Your task to perform on an android device: turn on translation in the chrome app Image 0: 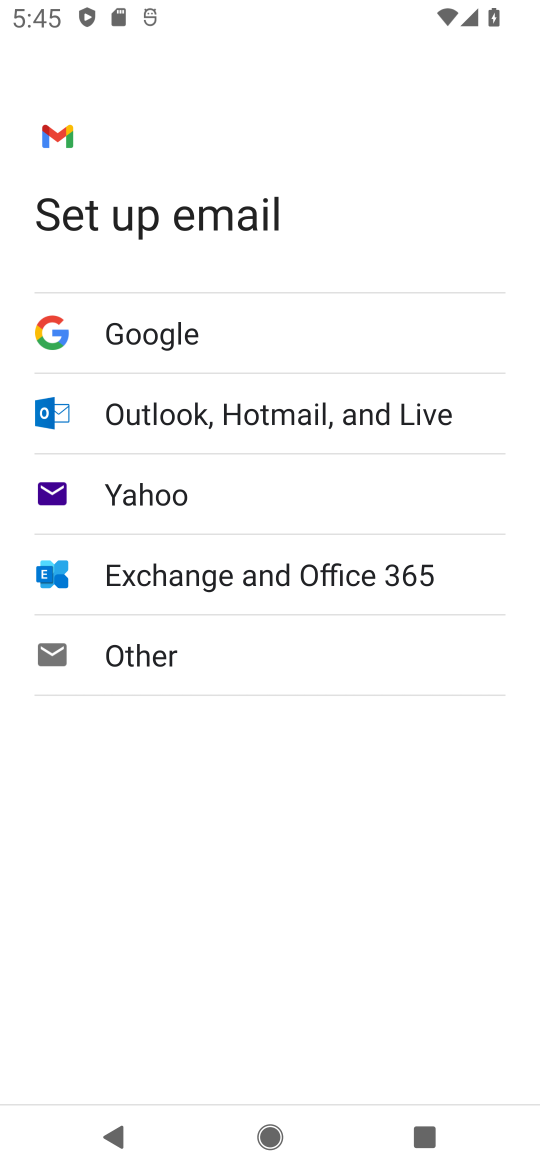
Step 0: press home button
Your task to perform on an android device: turn on translation in the chrome app Image 1: 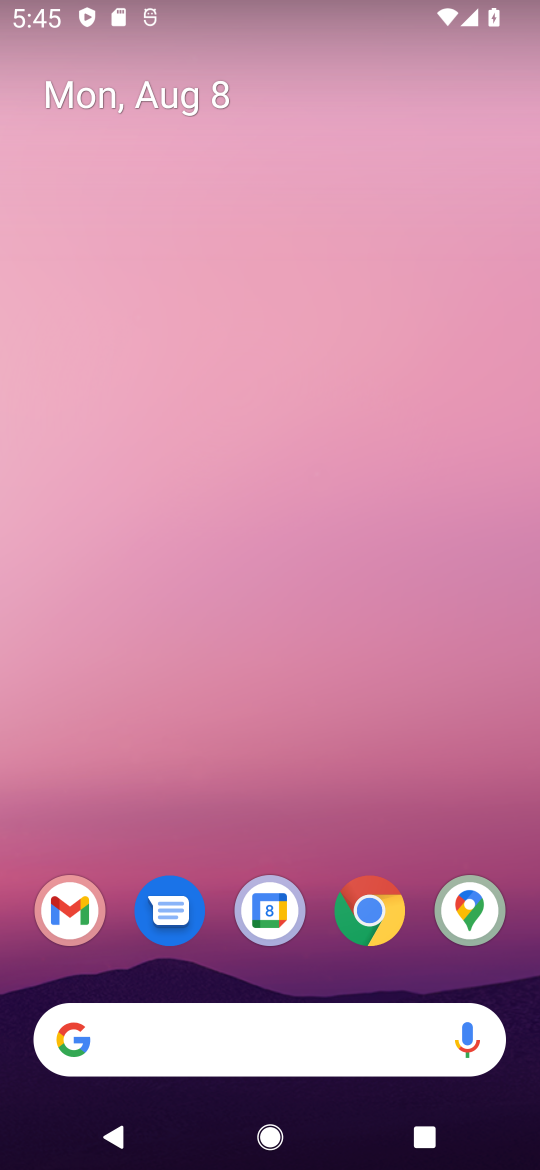
Step 1: click (368, 909)
Your task to perform on an android device: turn on translation in the chrome app Image 2: 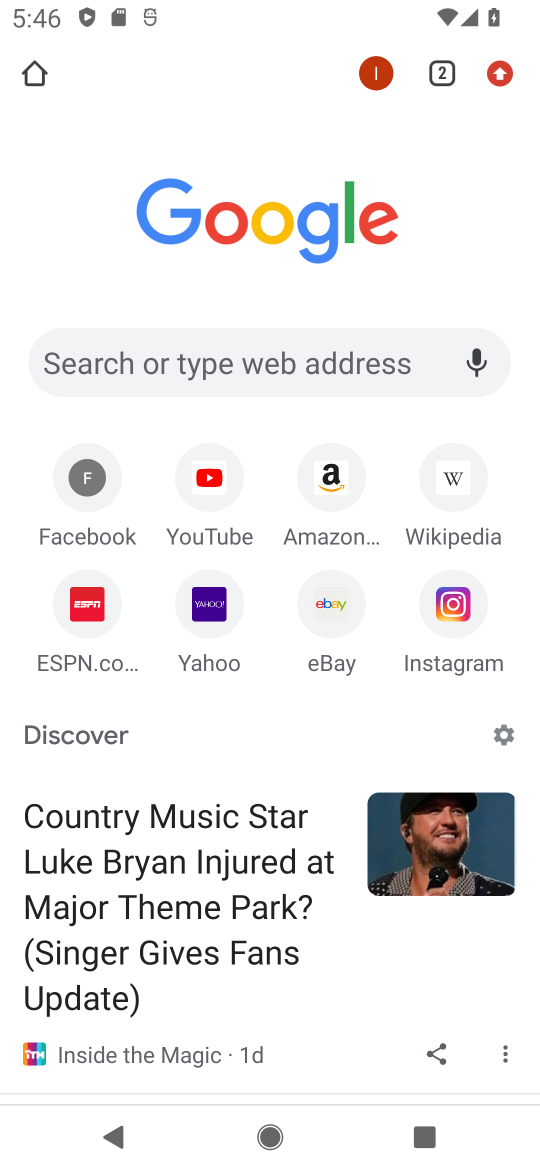
Step 2: click (501, 79)
Your task to perform on an android device: turn on translation in the chrome app Image 3: 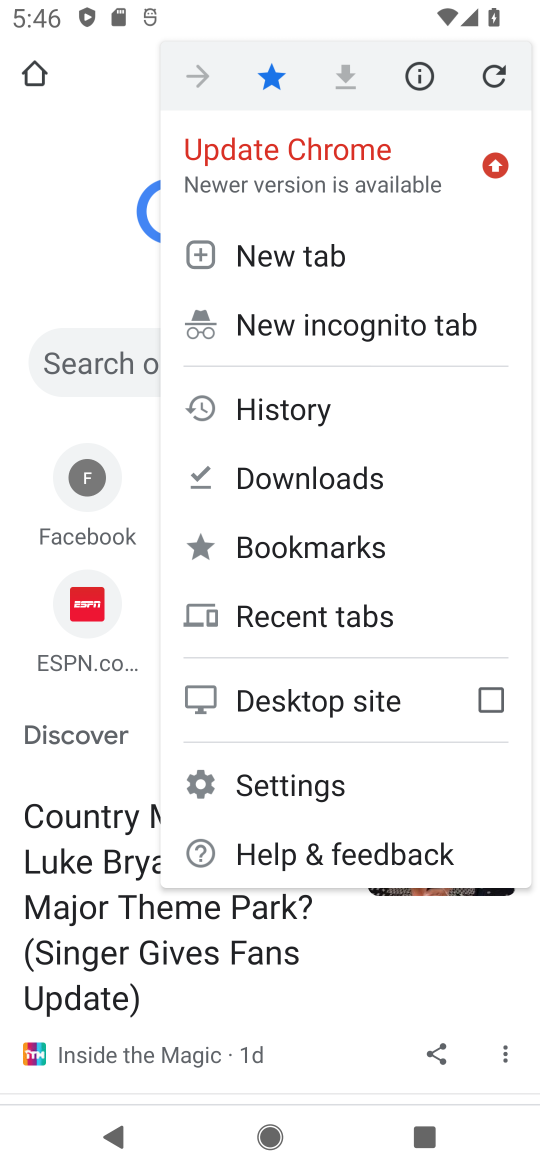
Step 3: click (298, 785)
Your task to perform on an android device: turn on translation in the chrome app Image 4: 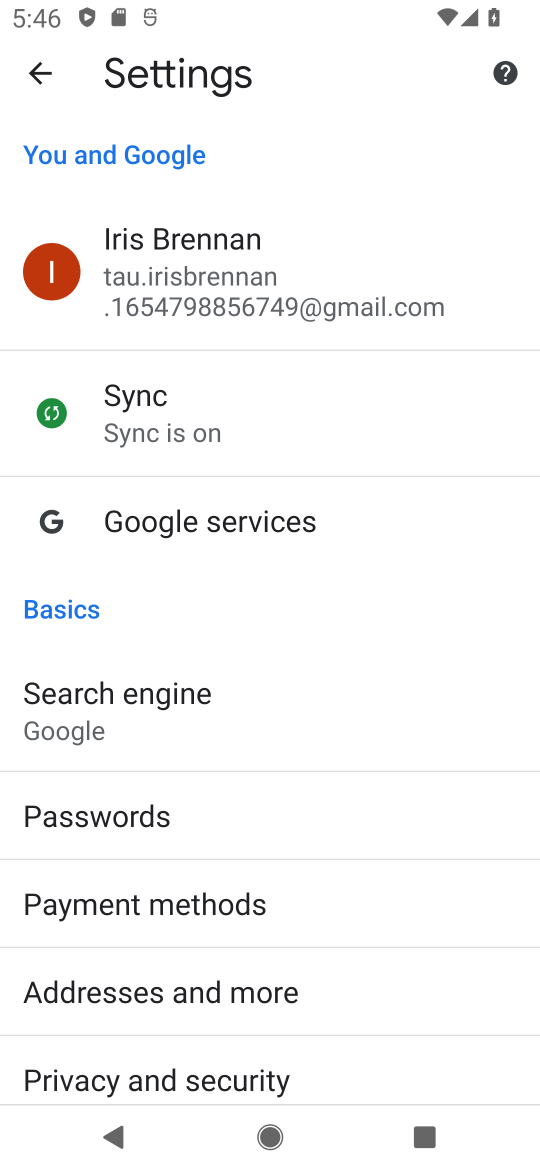
Step 4: drag from (214, 873) to (270, 737)
Your task to perform on an android device: turn on translation in the chrome app Image 5: 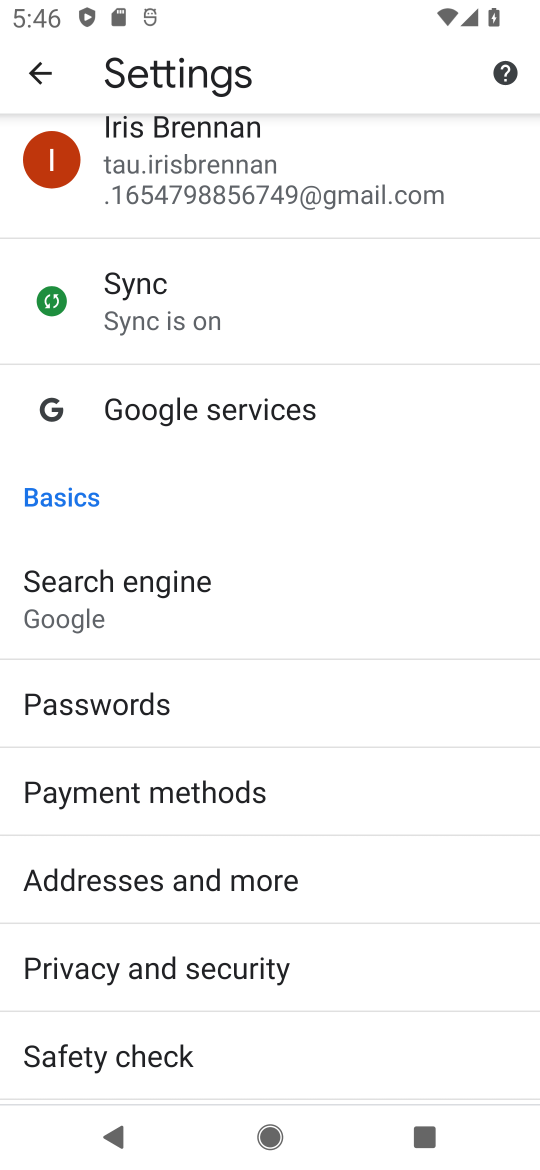
Step 5: drag from (275, 811) to (344, 674)
Your task to perform on an android device: turn on translation in the chrome app Image 6: 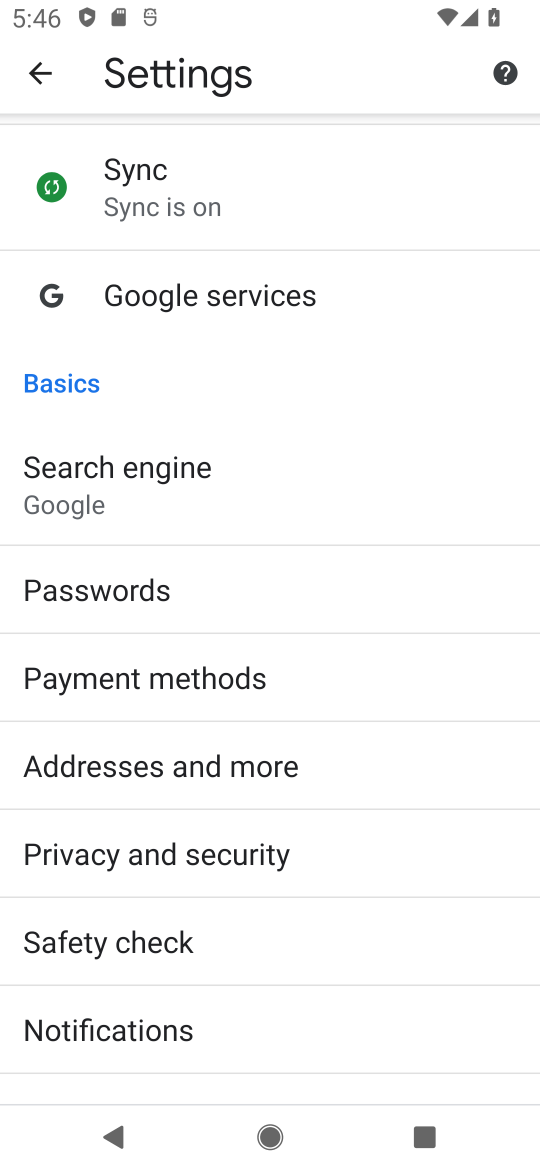
Step 6: drag from (272, 791) to (329, 638)
Your task to perform on an android device: turn on translation in the chrome app Image 7: 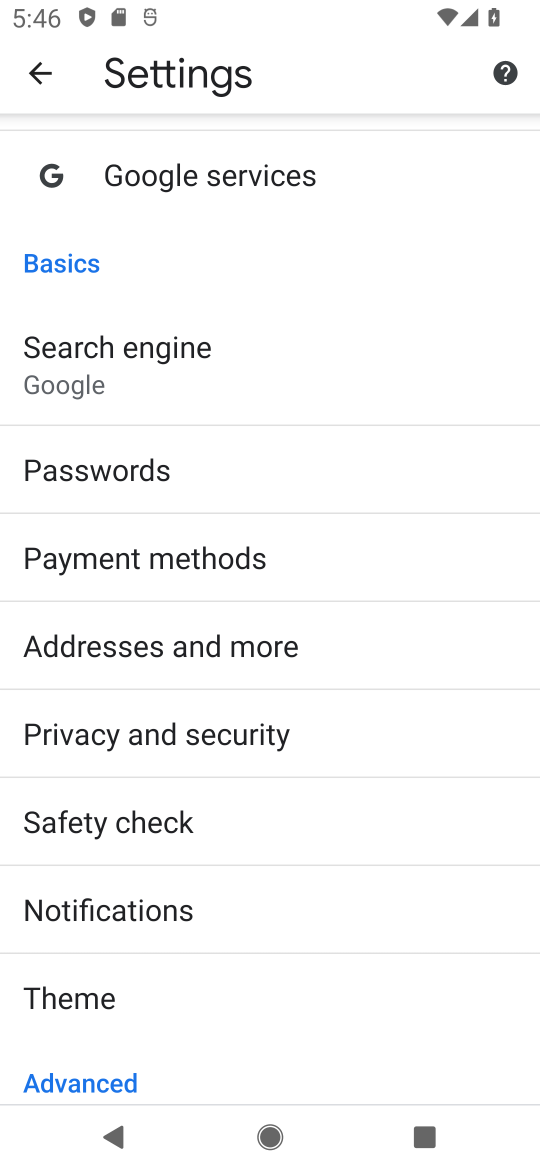
Step 7: drag from (225, 797) to (304, 654)
Your task to perform on an android device: turn on translation in the chrome app Image 8: 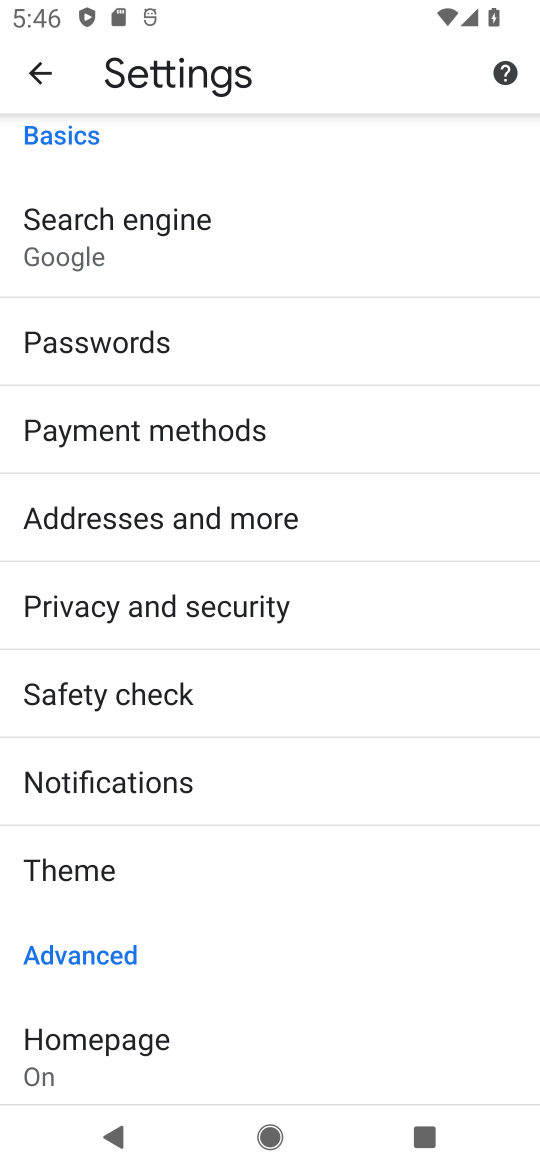
Step 8: drag from (216, 809) to (324, 660)
Your task to perform on an android device: turn on translation in the chrome app Image 9: 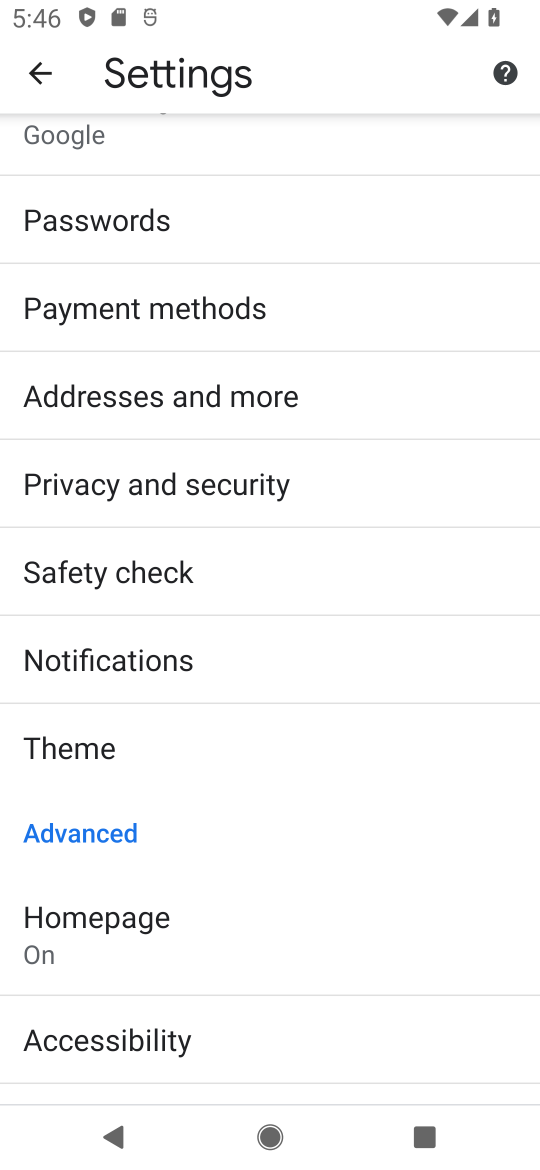
Step 9: drag from (224, 824) to (295, 682)
Your task to perform on an android device: turn on translation in the chrome app Image 10: 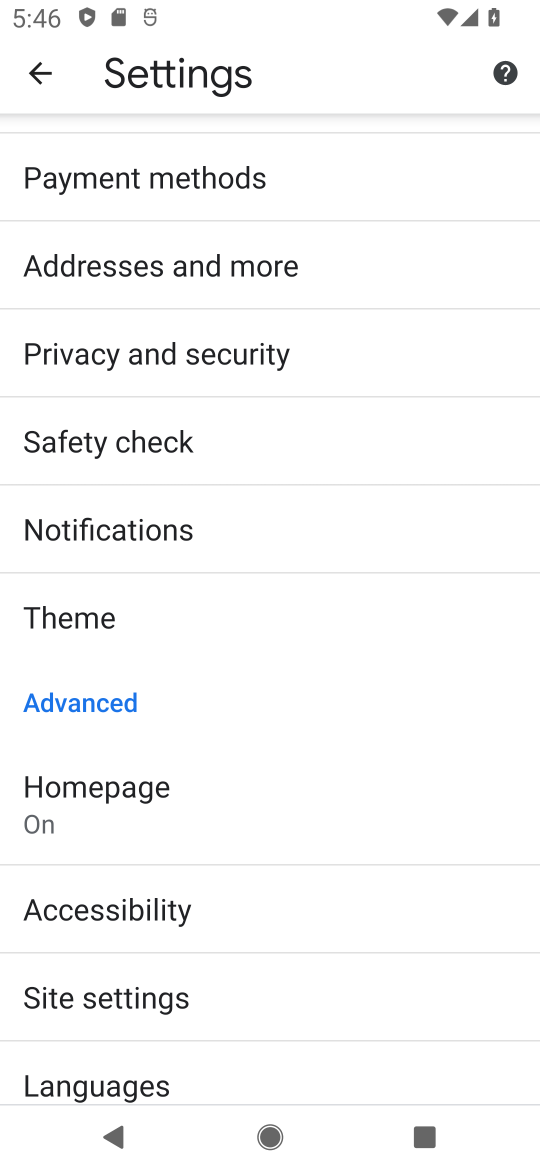
Step 10: drag from (218, 901) to (290, 767)
Your task to perform on an android device: turn on translation in the chrome app Image 11: 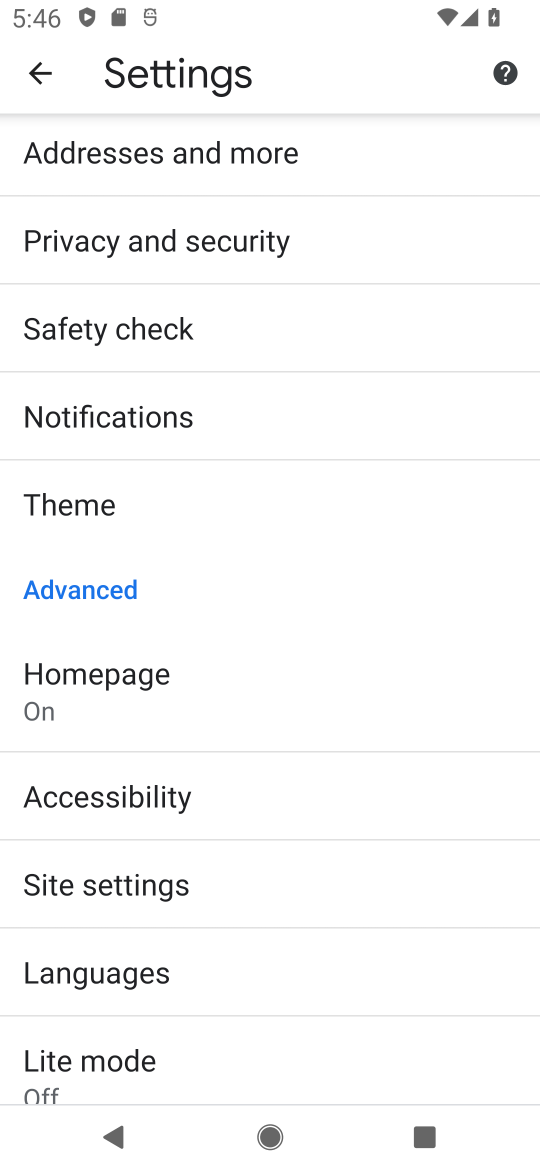
Step 11: click (134, 978)
Your task to perform on an android device: turn on translation in the chrome app Image 12: 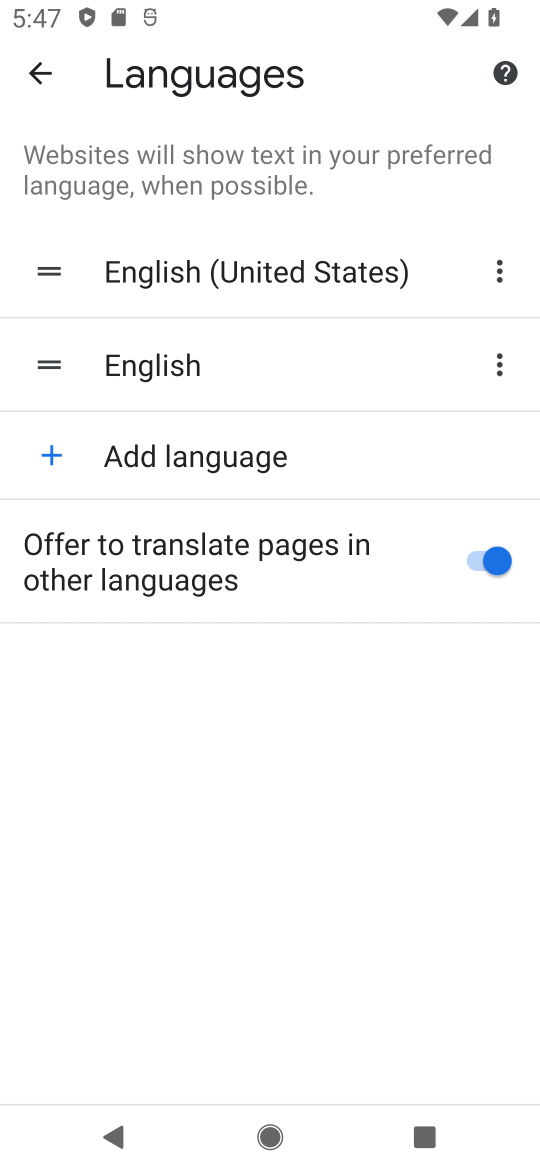
Step 12: task complete